Your task to perform on an android device: Open wifi settings Image 0: 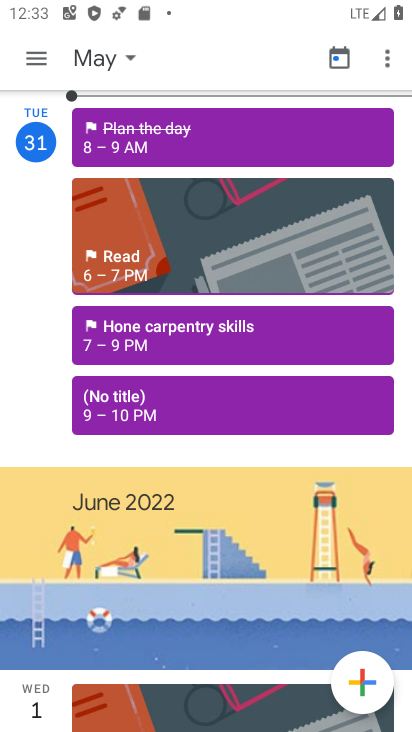
Step 0: press home button
Your task to perform on an android device: Open wifi settings Image 1: 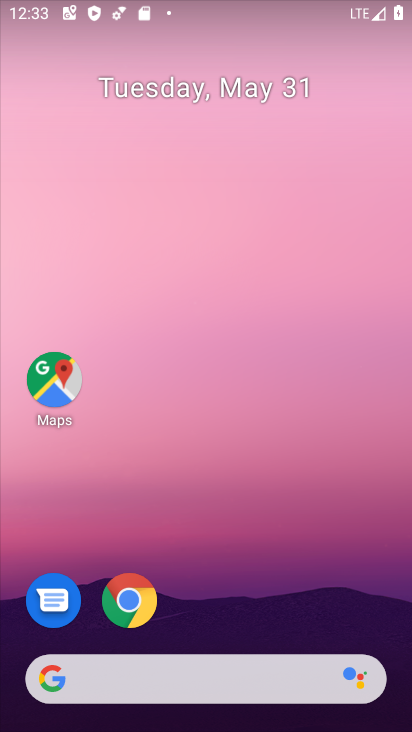
Step 1: drag from (238, 728) to (239, 12)
Your task to perform on an android device: Open wifi settings Image 2: 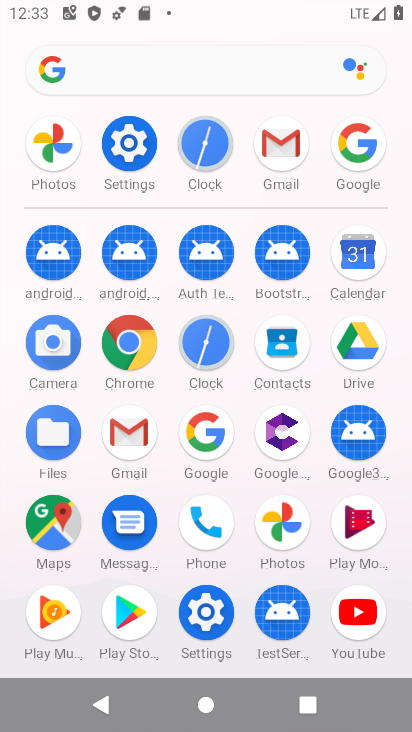
Step 2: click (133, 143)
Your task to perform on an android device: Open wifi settings Image 3: 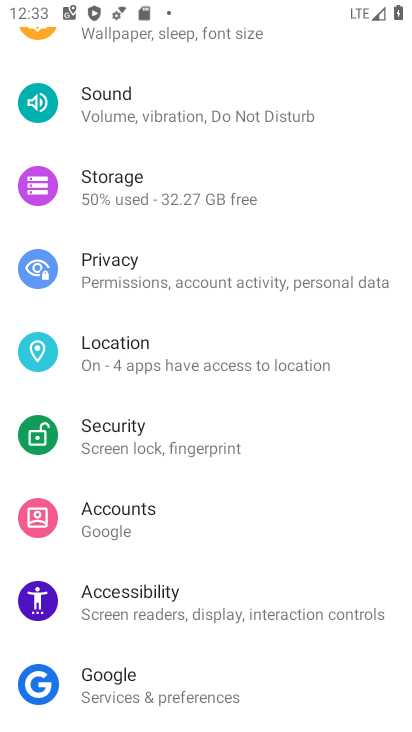
Step 3: drag from (210, 79) to (237, 598)
Your task to perform on an android device: Open wifi settings Image 4: 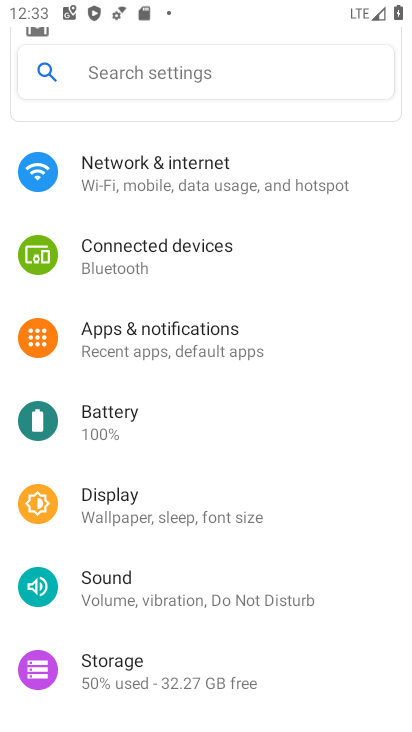
Step 4: click (152, 180)
Your task to perform on an android device: Open wifi settings Image 5: 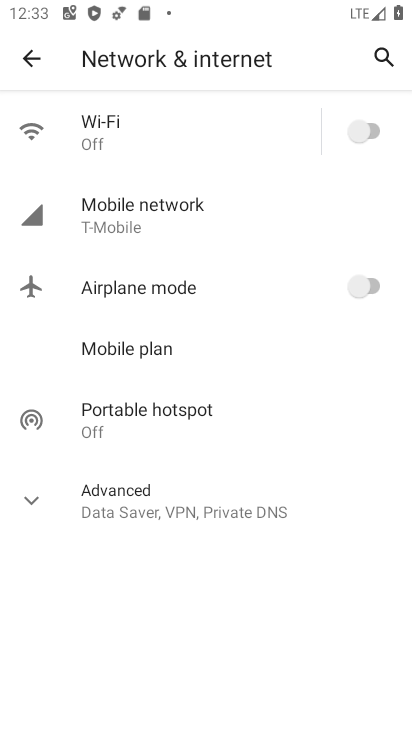
Step 5: click (95, 122)
Your task to perform on an android device: Open wifi settings Image 6: 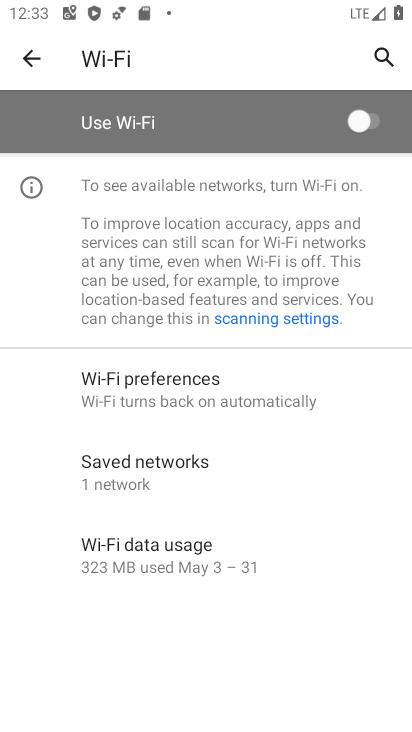
Step 6: task complete